Your task to perform on an android device: Open wifi settings Image 0: 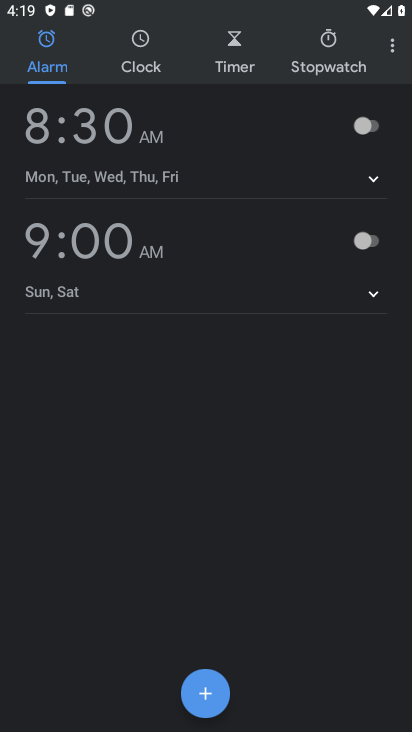
Step 0: press home button
Your task to perform on an android device: Open wifi settings Image 1: 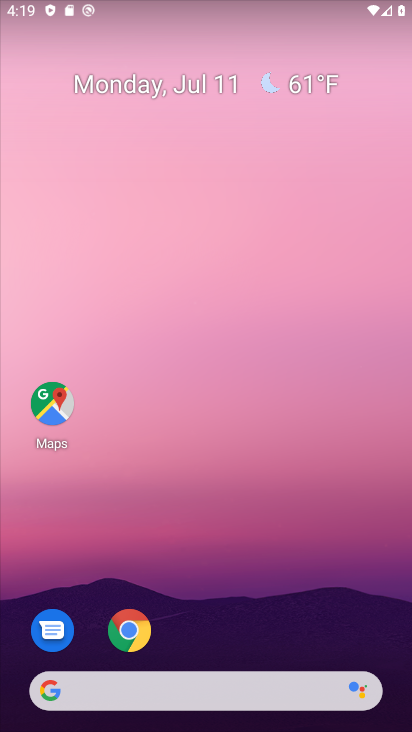
Step 1: drag from (291, 602) to (296, 71)
Your task to perform on an android device: Open wifi settings Image 2: 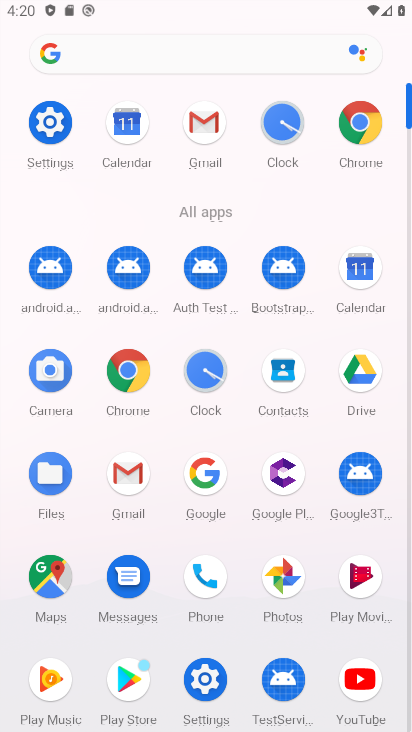
Step 2: click (51, 115)
Your task to perform on an android device: Open wifi settings Image 3: 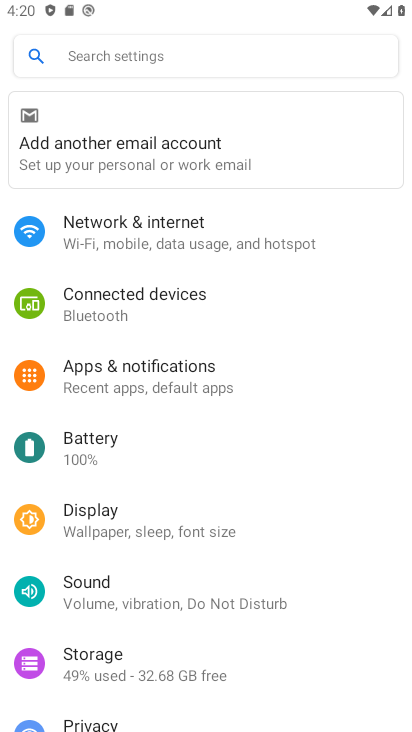
Step 3: click (150, 222)
Your task to perform on an android device: Open wifi settings Image 4: 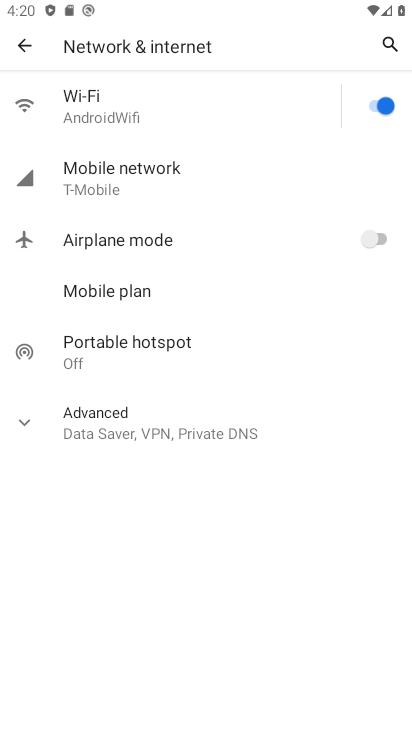
Step 4: click (86, 123)
Your task to perform on an android device: Open wifi settings Image 5: 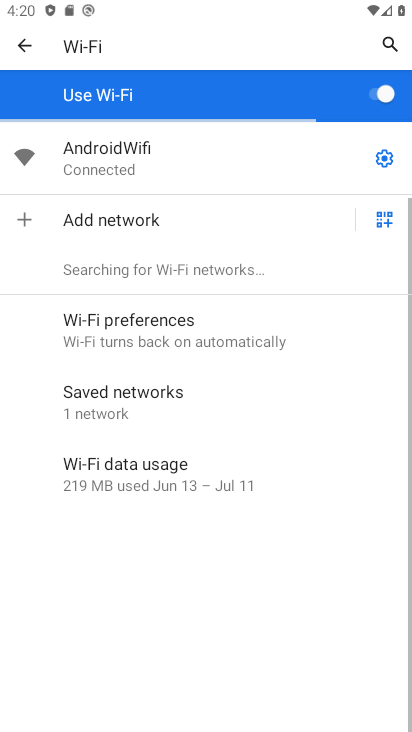
Step 5: task complete